Your task to perform on an android device: Do I have any events tomorrow? Image 0: 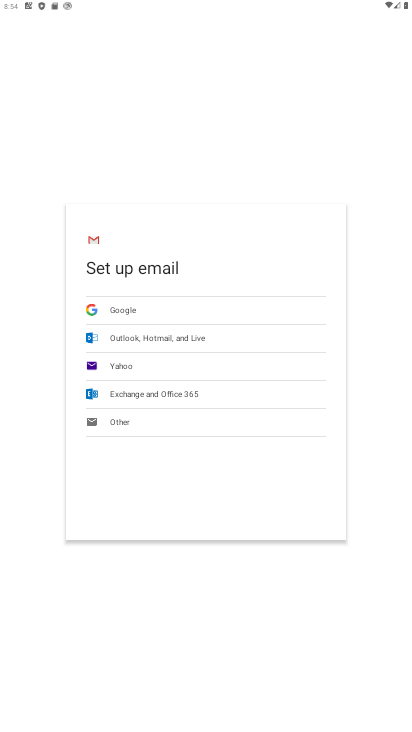
Step 0: drag from (210, 677) to (216, 125)
Your task to perform on an android device: Do I have any events tomorrow? Image 1: 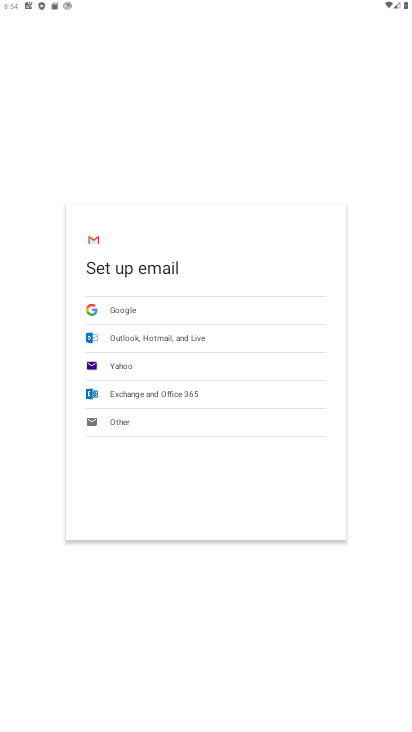
Step 1: press home button
Your task to perform on an android device: Do I have any events tomorrow? Image 2: 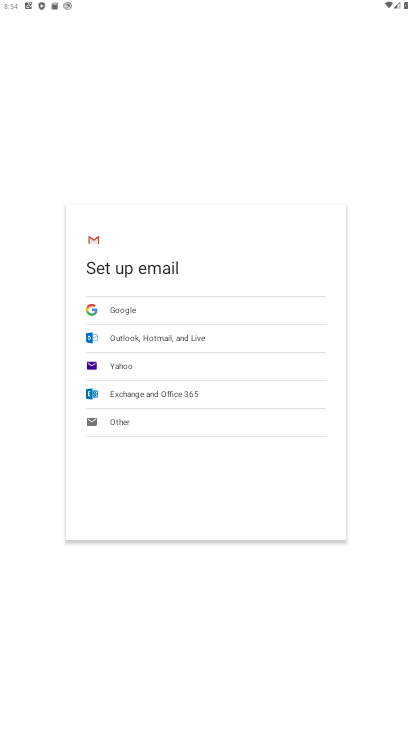
Step 2: press home button
Your task to perform on an android device: Do I have any events tomorrow? Image 3: 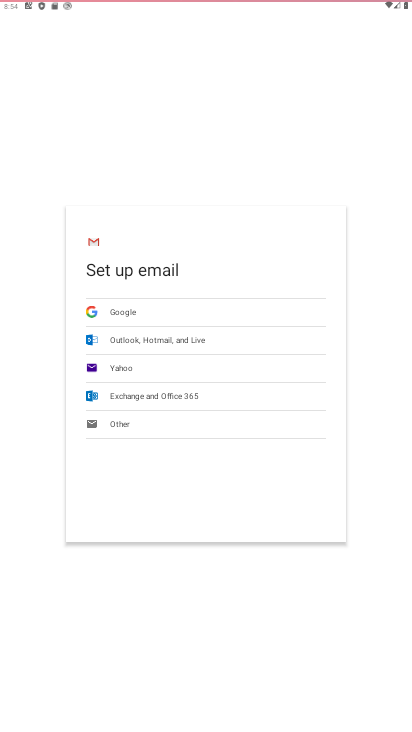
Step 3: drag from (219, 563) to (224, 246)
Your task to perform on an android device: Do I have any events tomorrow? Image 4: 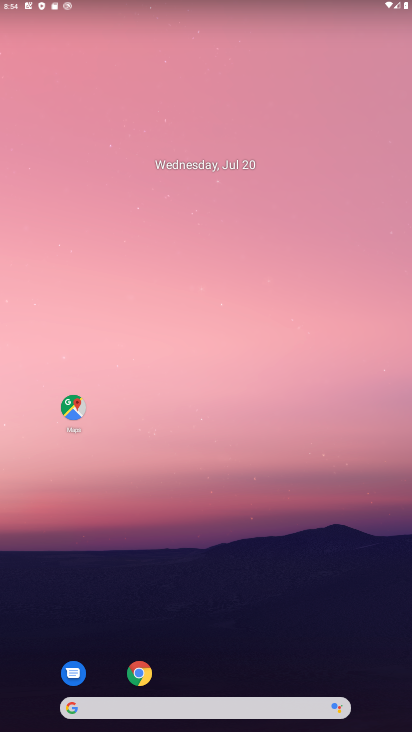
Step 4: drag from (216, 676) to (184, 263)
Your task to perform on an android device: Do I have any events tomorrow? Image 5: 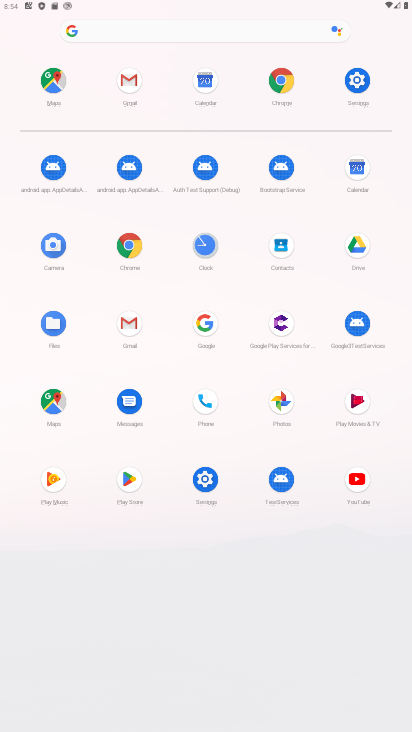
Step 5: drag from (212, 599) to (232, 284)
Your task to perform on an android device: Do I have any events tomorrow? Image 6: 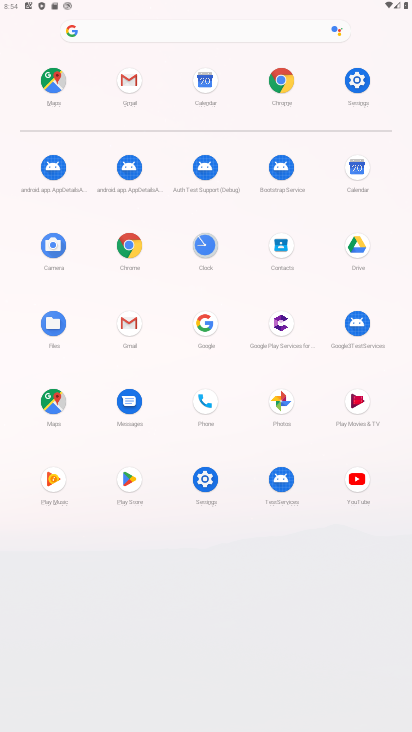
Step 6: drag from (224, 571) to (198, 172)
Your task to perform on an android device: Do I have any events tomorrow? Image 7: 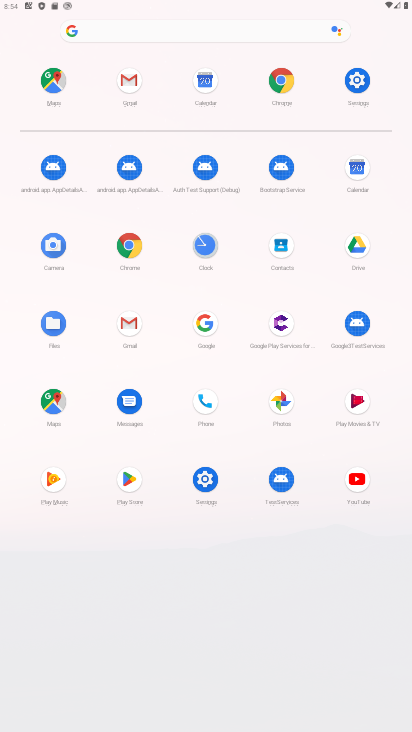
Step 7: drag from (250, 545) to (236, 248)
Your task to perform on an android device: Do I have any events tomorrow? Image 8: 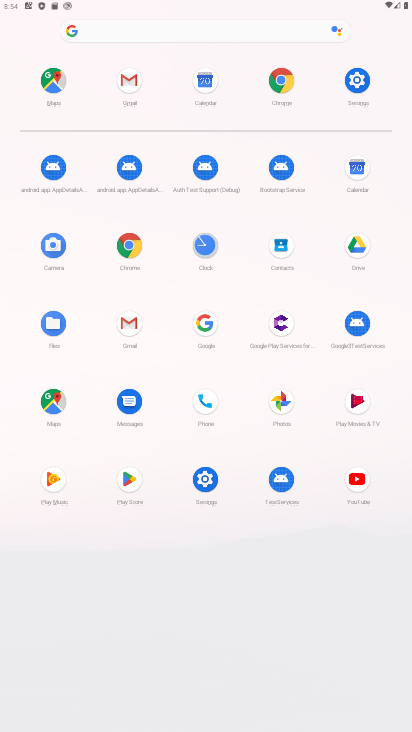
Step 8: click (359, 174)
Your task to perform on an android device: Do I have any events tomorrow? Image 9: 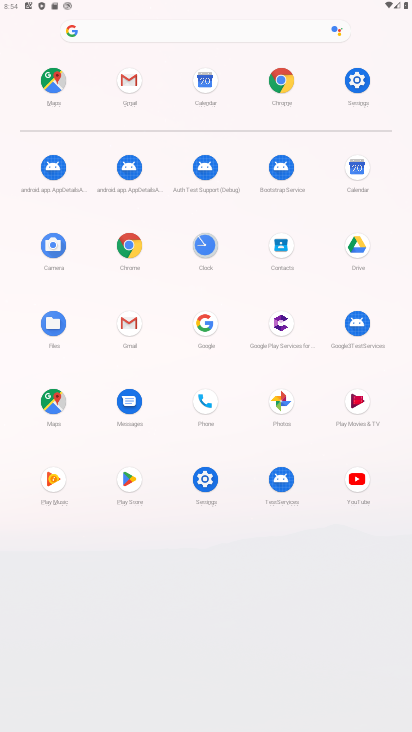
Step 9: click (359, 174)
Your task to perform on an android device: Do I have any events tomorrow? Image 10: 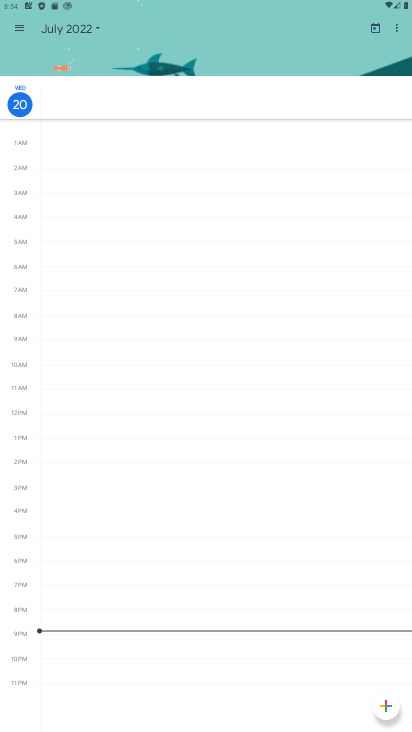
Step 10: click (380, 30)
Your task to perform on an android device: Do I have any events tomorrow? Image 11: 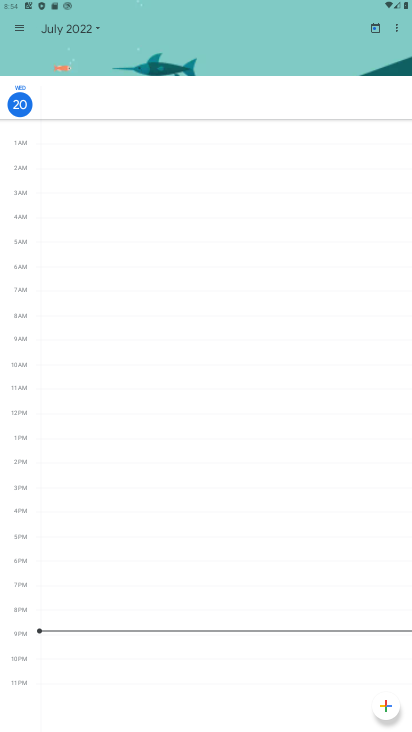
Step 11: click (64, 27)
Your task to perform on an android device: Do I have any events tomorrow? Image 12: 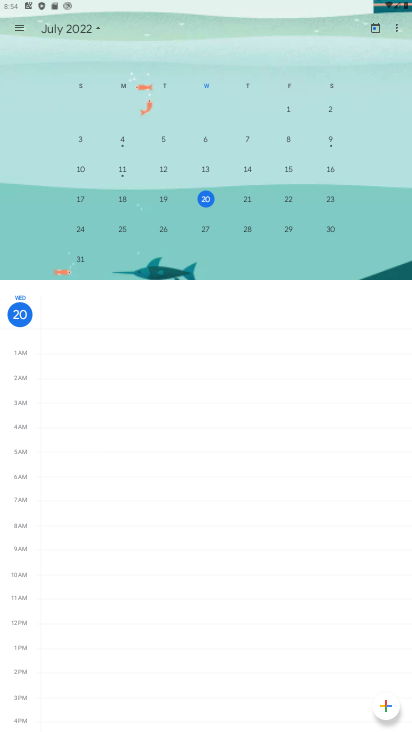
Step 12: click (247, 198)
Your task to perform on an android device: Do I have any events tomorrow? Image 13: 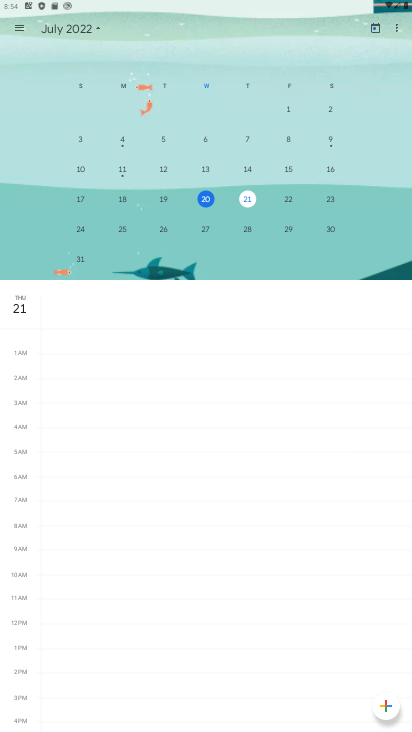
Step 13: task complete